Your task to perform on an android device: Go to battery settings Image 0: 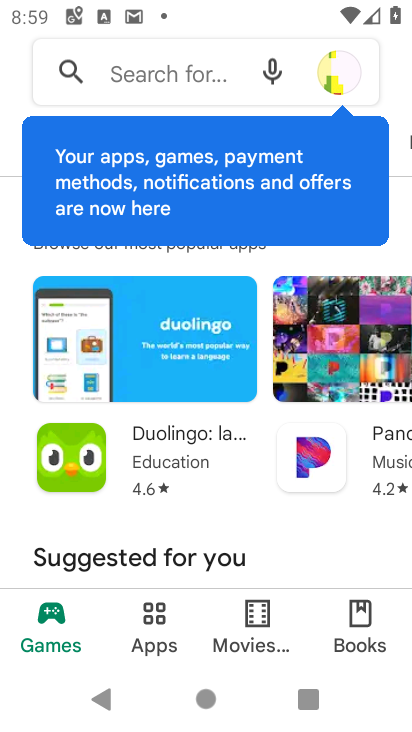
Step 0: press home button
Your task to perform on an android device: Go to battery settings Image 1: 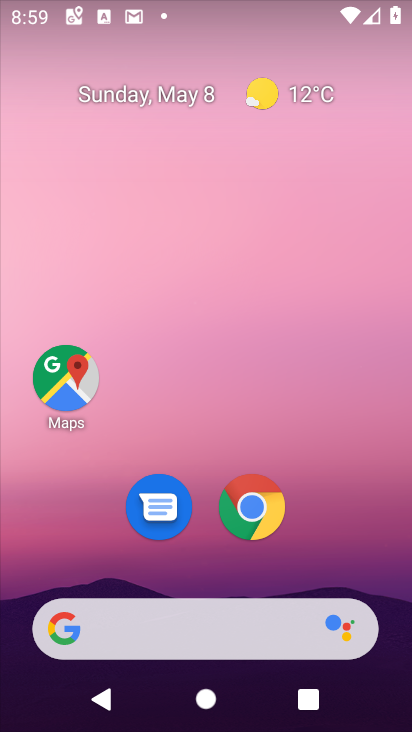
Step 1: drag from (249, 703) to (228, 65)
Your task to perform on an android device: Go to battery settings Image 2: 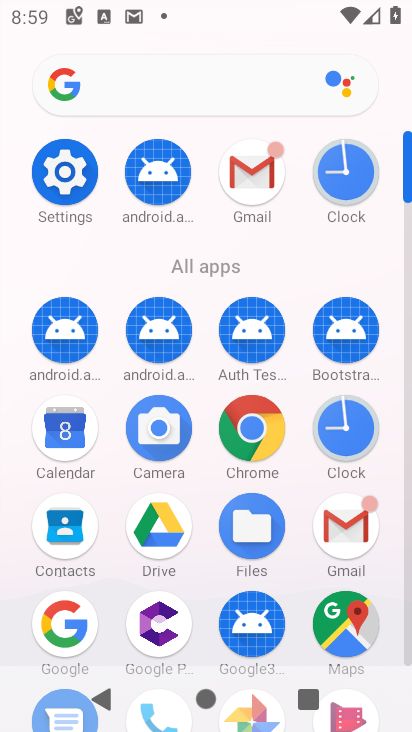
Step 2: click (67, 167)
Your task to perform on an android device: Go to battery settings Image 3: 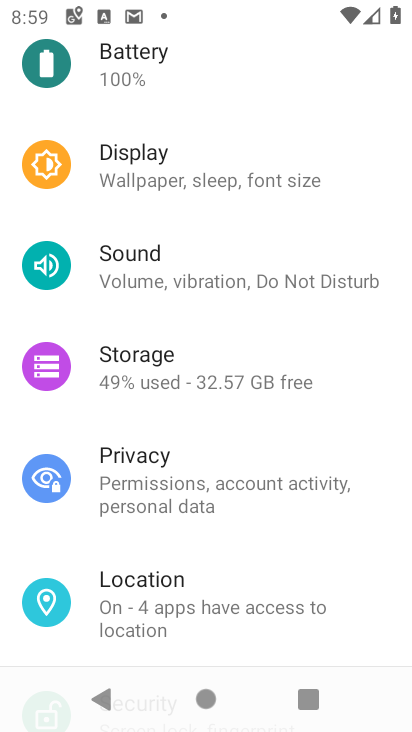
Step 3: click (203, 61)
Your task to perform on an android device: Go to battery settings Image 4: 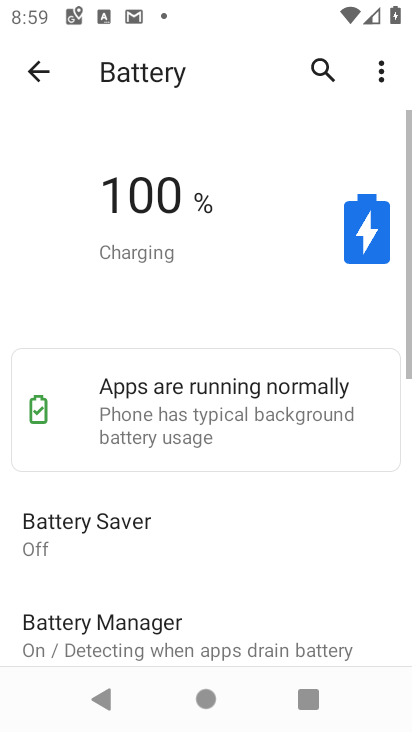
Step 4: task complete